Your task to perform on an android device: open chrome privacy settings Image 0: 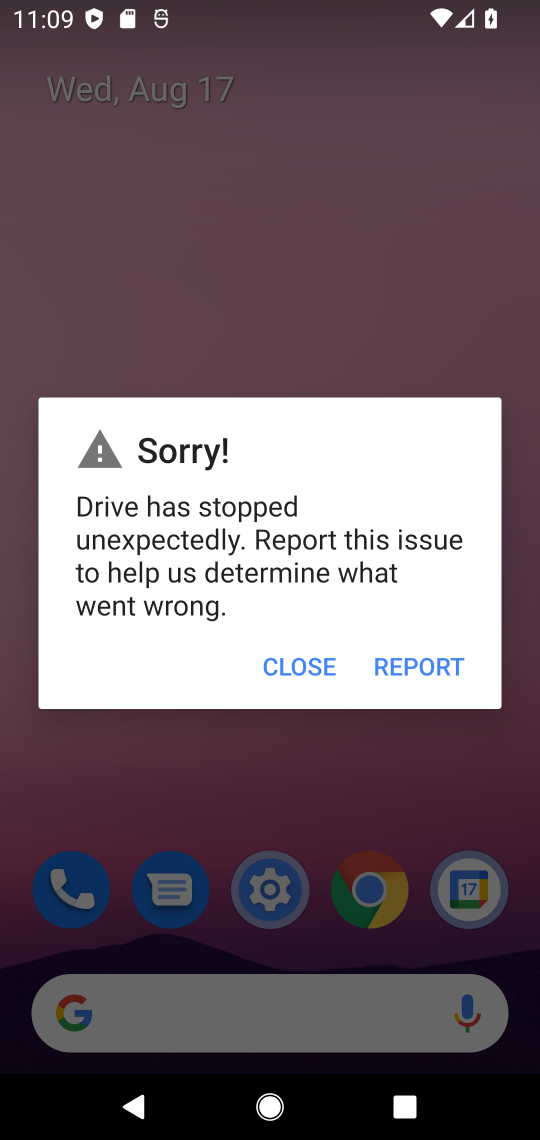
Step 0: press home button
Your task to perform on an android device: open chrome privacy settings Image 1: 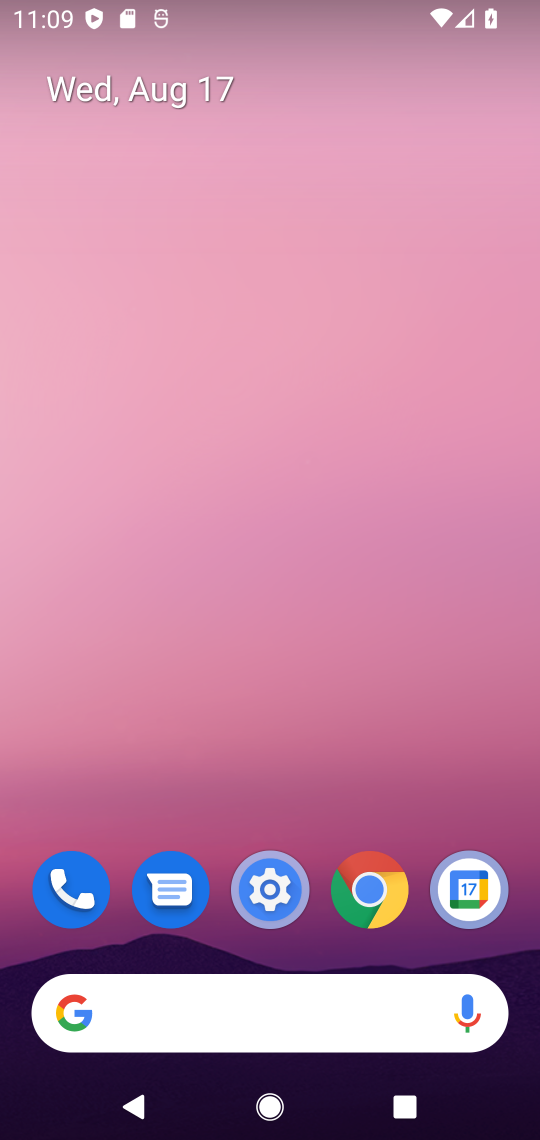
Step 1: click (371, 876)
Your task to perform on an android device: open chrome privacy settings Image 2: 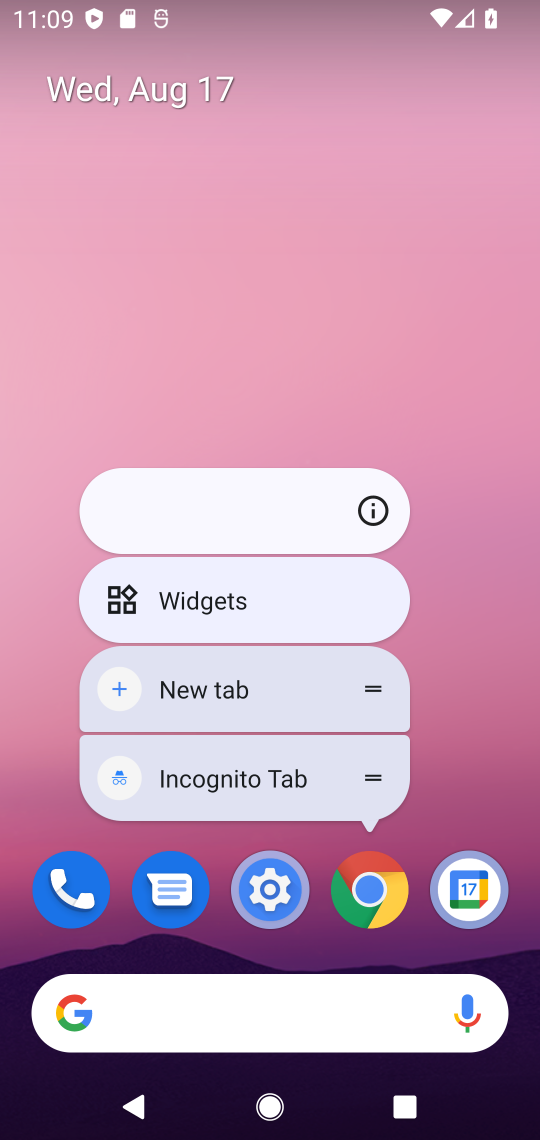
Step 2: click (371, 880)
Your task to perform on an android device: open chrome privacy settings Image 3: 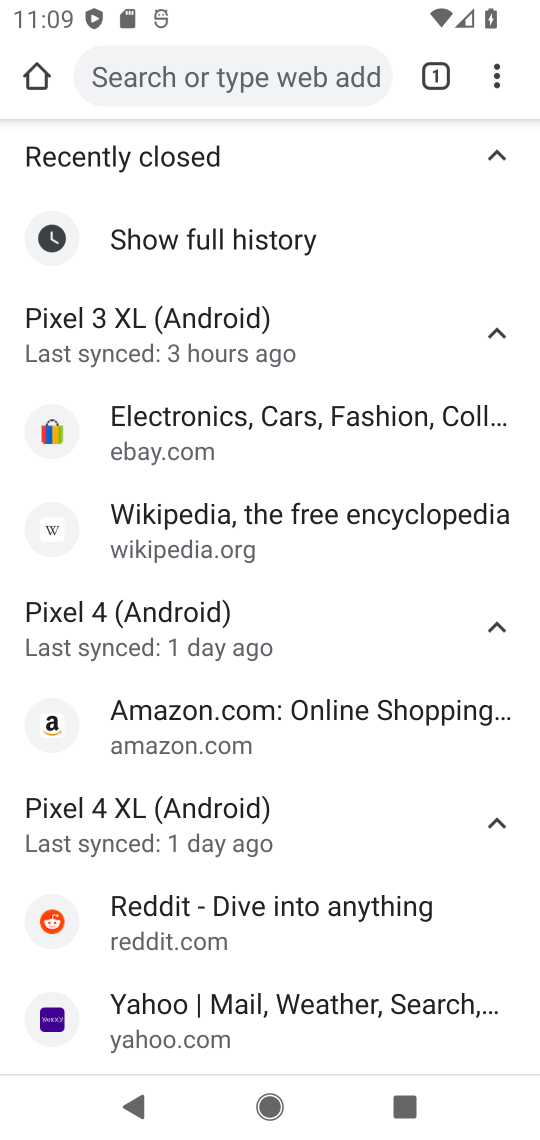
Step 3: click (498, 83)
Your task to perform on an android device: open chrome privacy settings Image 4: 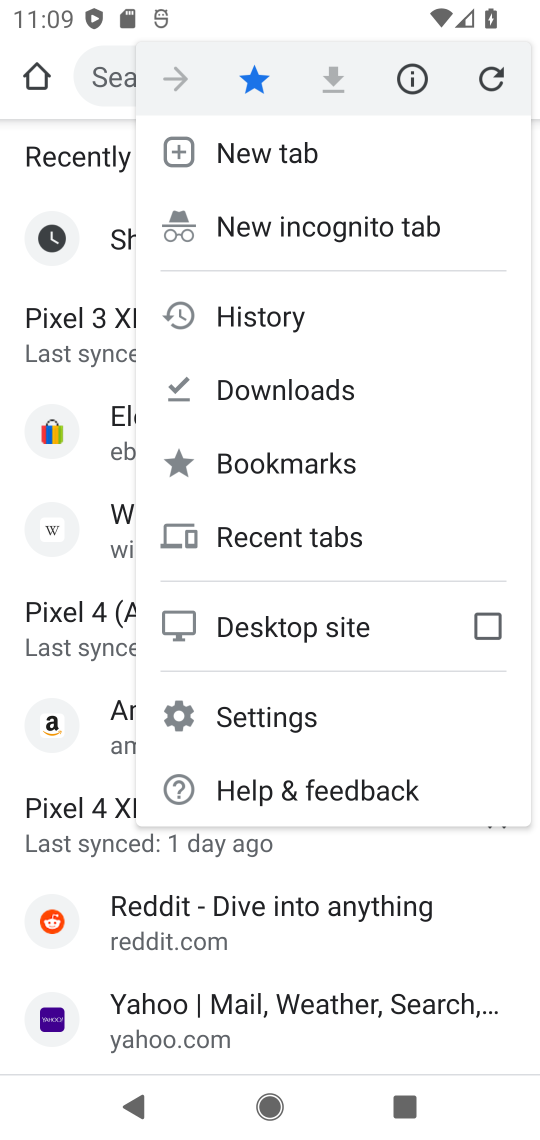
Step 4: click (261, 704)
Your task to perform on an android device: open chrome privacy settings Image 5: 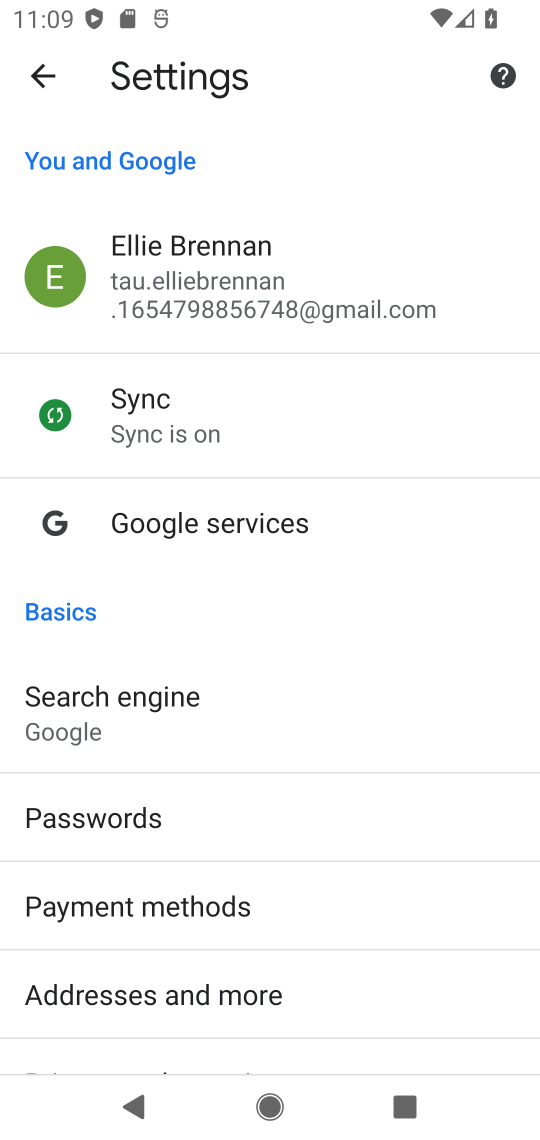
Step 5: drag from (382, 939) to (471, 217)
Your task to perform on an android device: open chrome privacy settings Image 6: 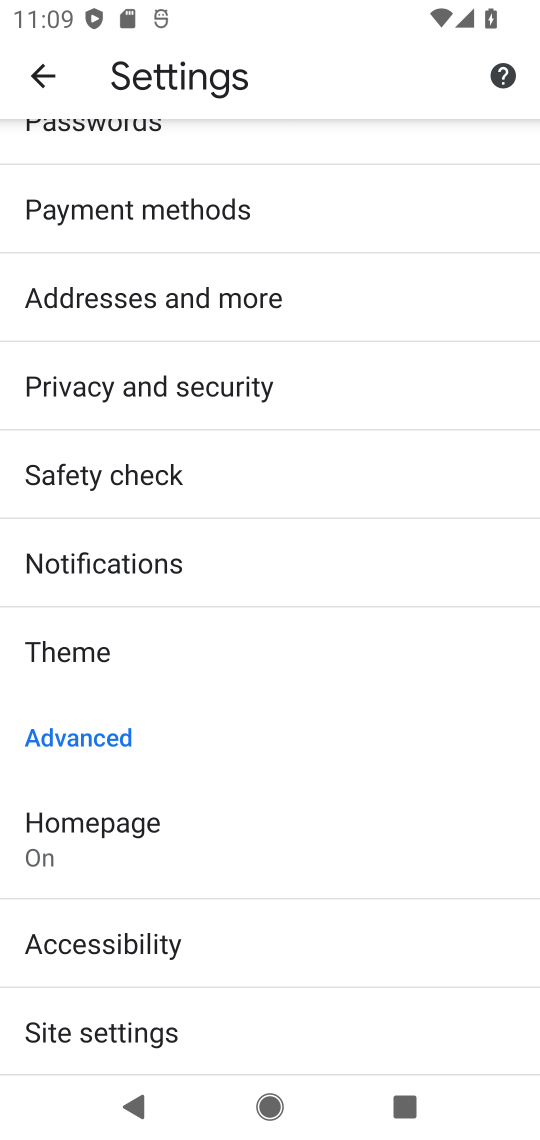
Step 6: click (259, 377)
Your task to perform on an android device: open chrome privacy settings Image 7: 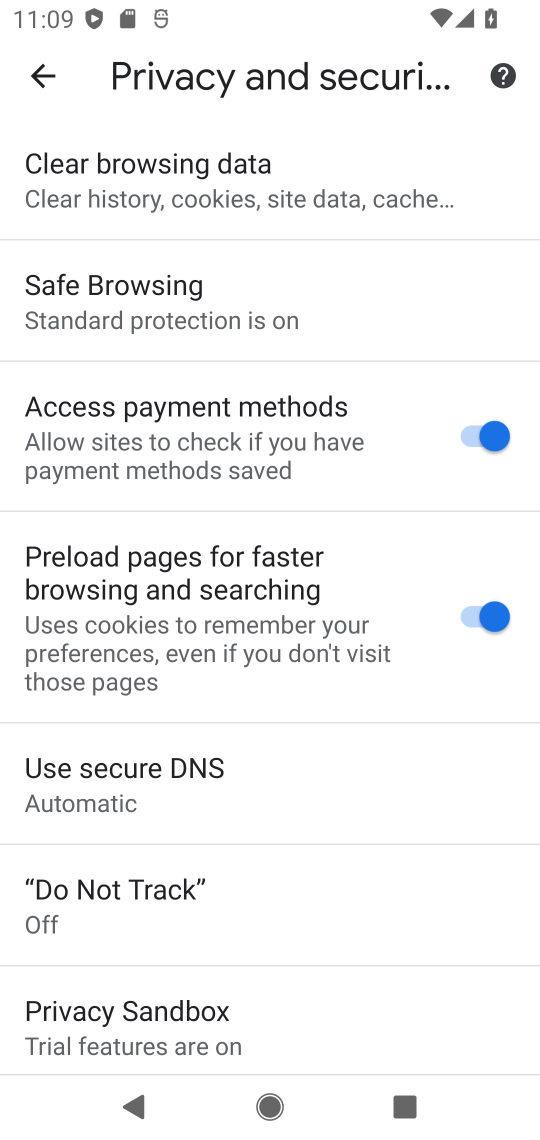
Step 7: task complete